Your task to perform on an android device: Open Yahoo.com Image 0: 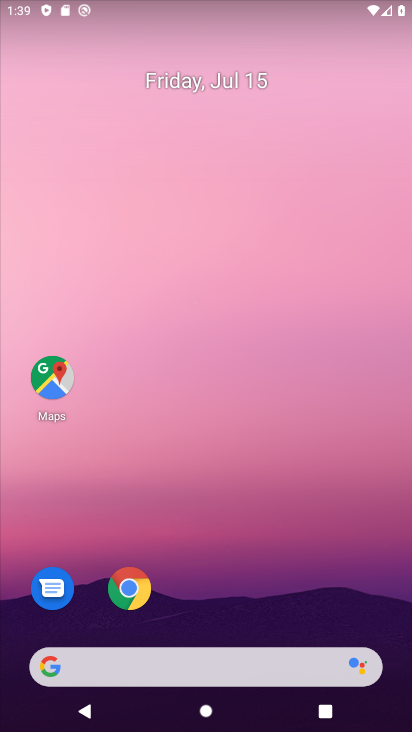
Step 0: click (138, 582)
Your task to perform on an android device: Open Yahoo.com Image 1: 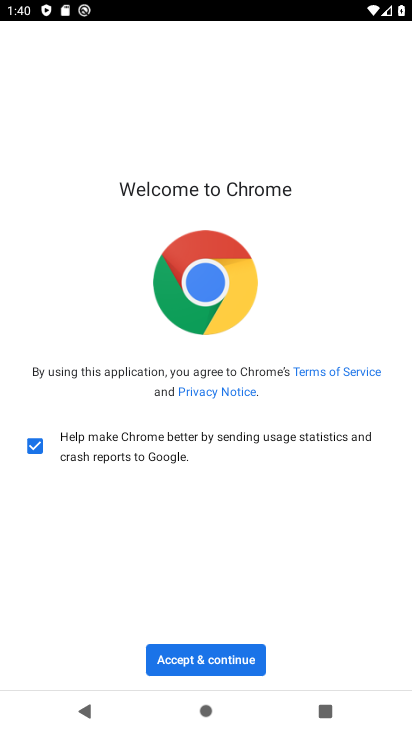
Step 1: click (249, 664)
Your task to perform on an android device: Open Yahoo.com Image 2: 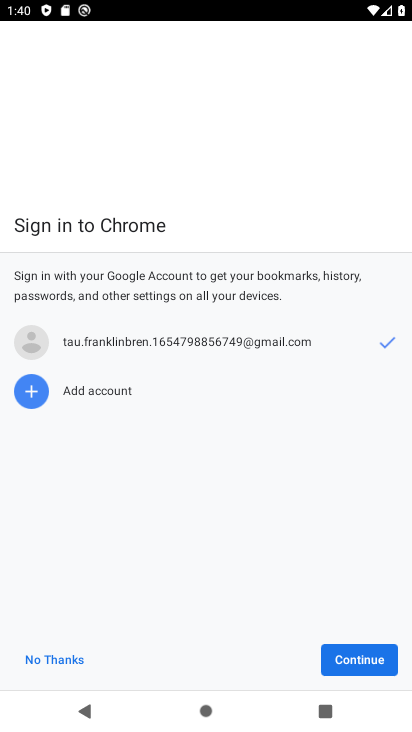
Step 2: click (383, 656)
Your task to perform on an android device: Open Yahoo.com Image 3: 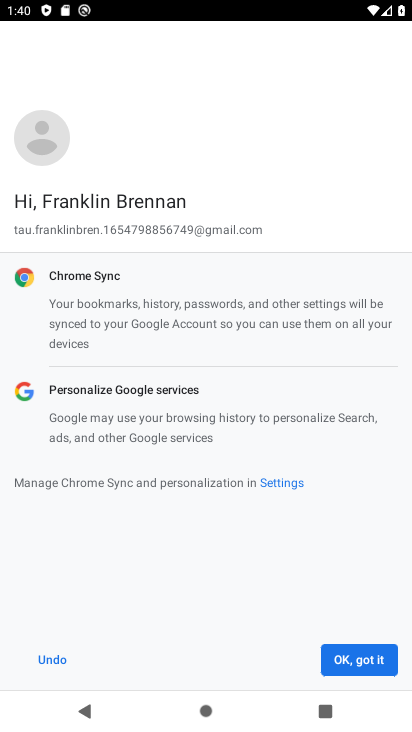
Step 3: click (383, 656)
Your task to perform on an android device: Open Yahoo.com Image 4: 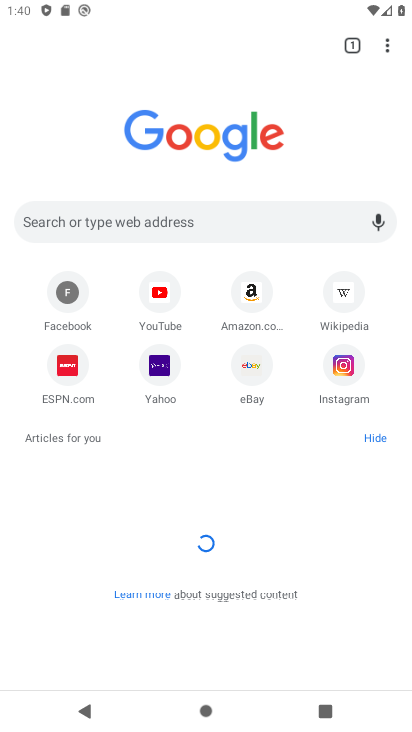
Step 4: click (162, 372)
Your task to perform on an android device: Open Yahoo.com Image 5: 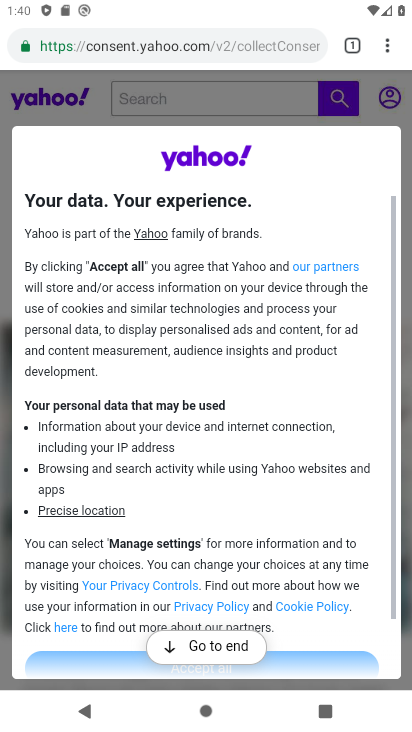
Step 5: task complete